Your task to perform on an android device: search for starred emails in the gmail app Image 0: 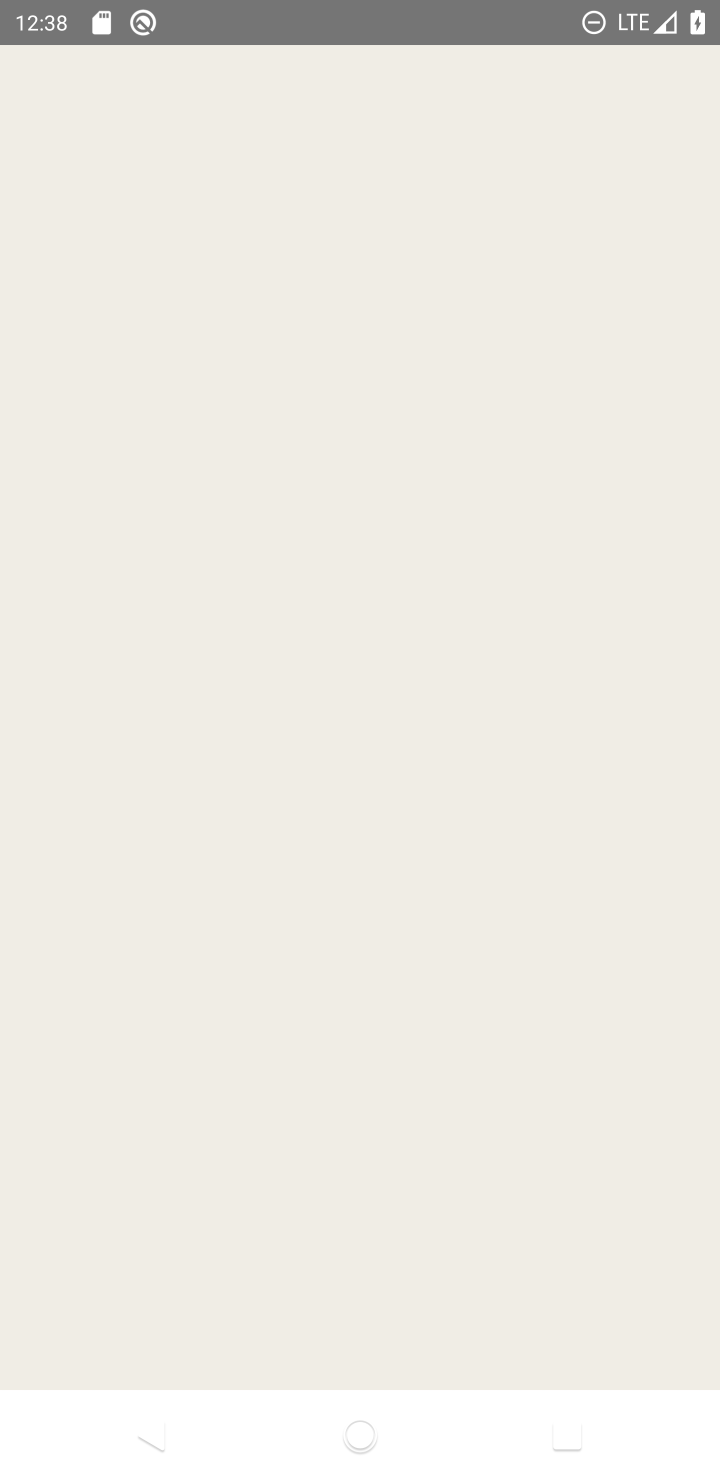
Step 0: press home button
Your task to perform on an android device: search for starred emails in the gmail app Image 1: 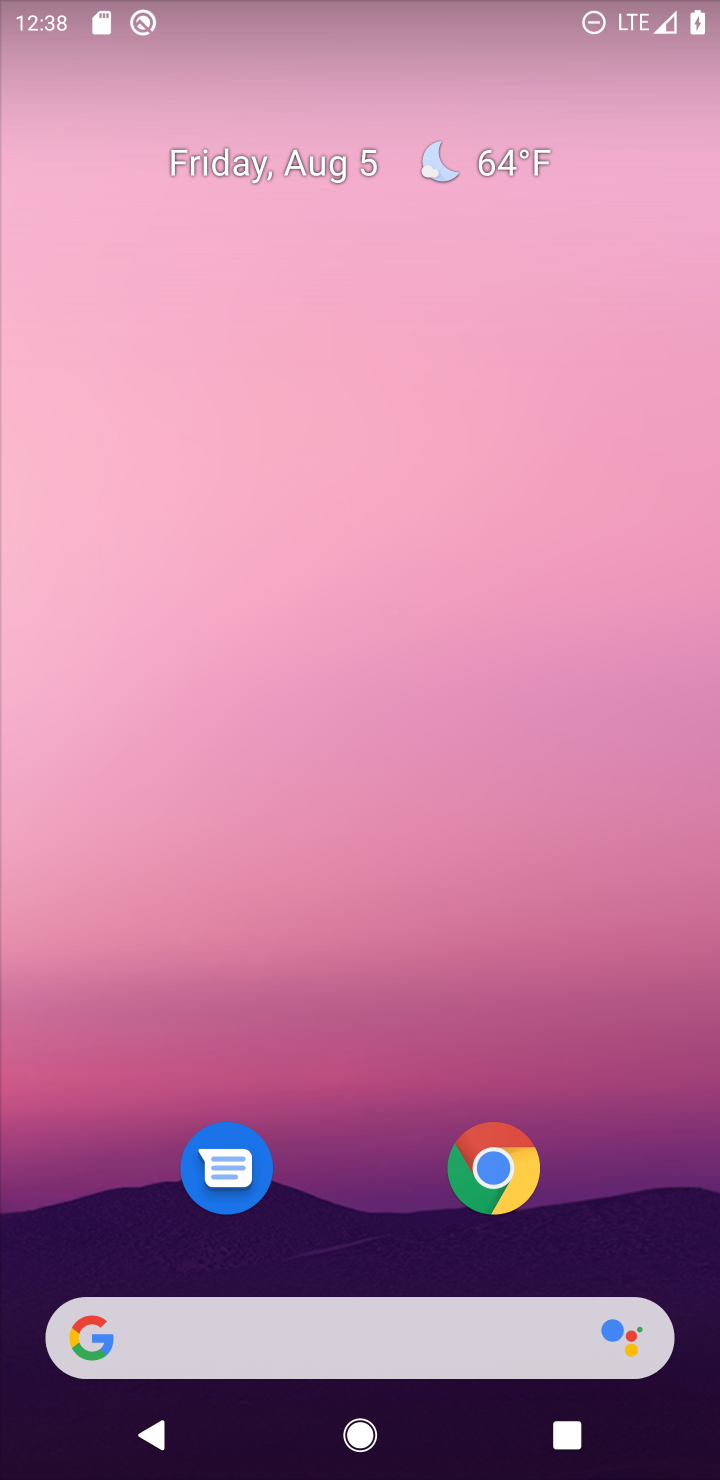
Step 1: drag from (657, 1111) to (344, 2)
Your task to perform on an android device: search for starred emails in the gmail app Image 2: 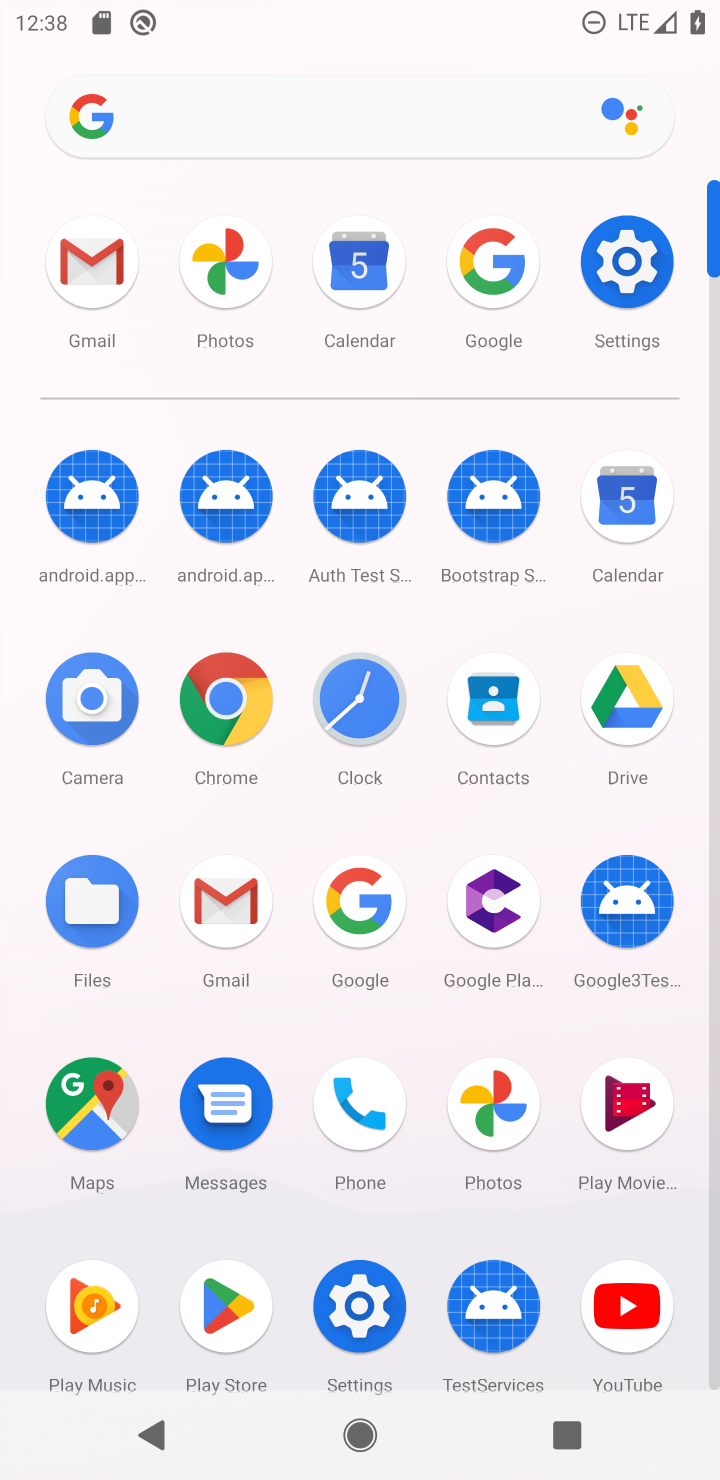
Step 2: click (232, 913)
Your task to perform on an android device: search for starred emails in the gmail app Image 3: 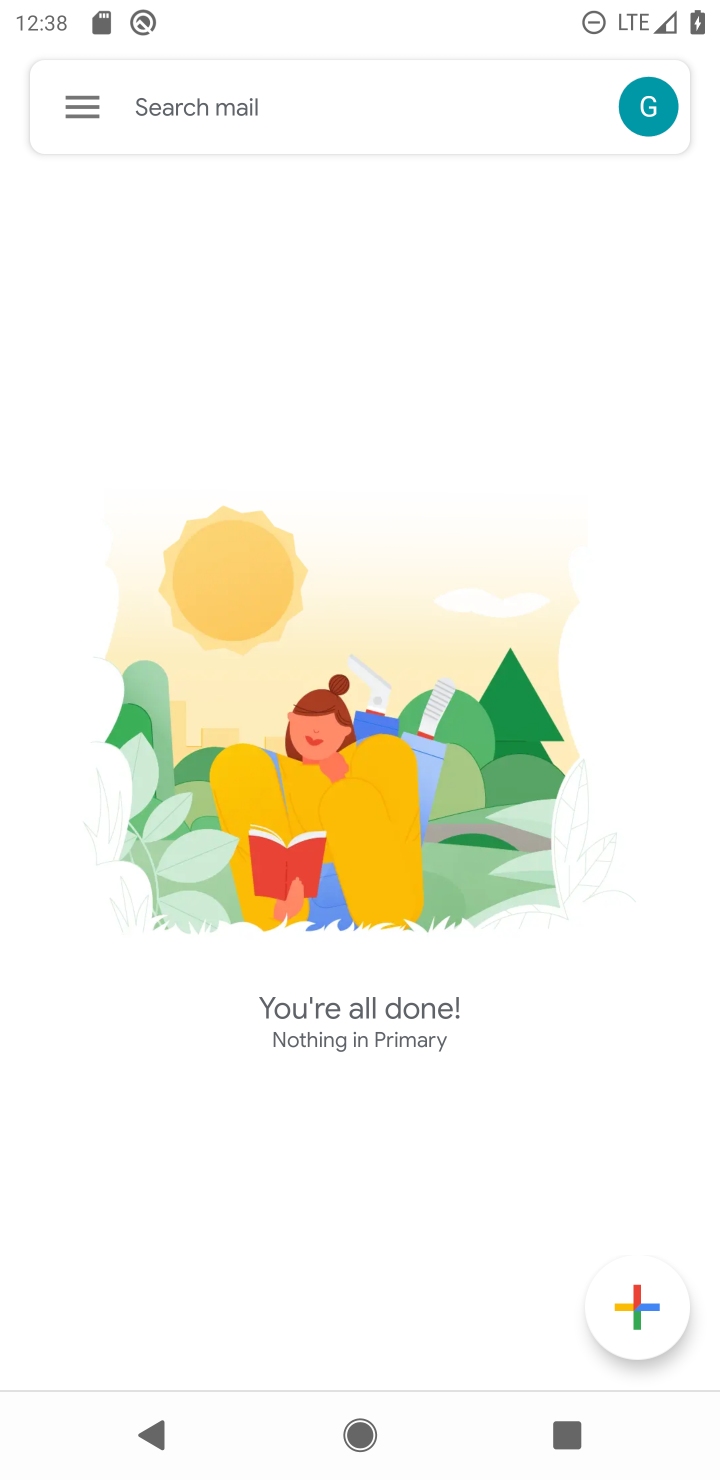
Step 3: click (76, 120)
Your task to perform on an android device: search for starred emails in the gmail app Image 4: 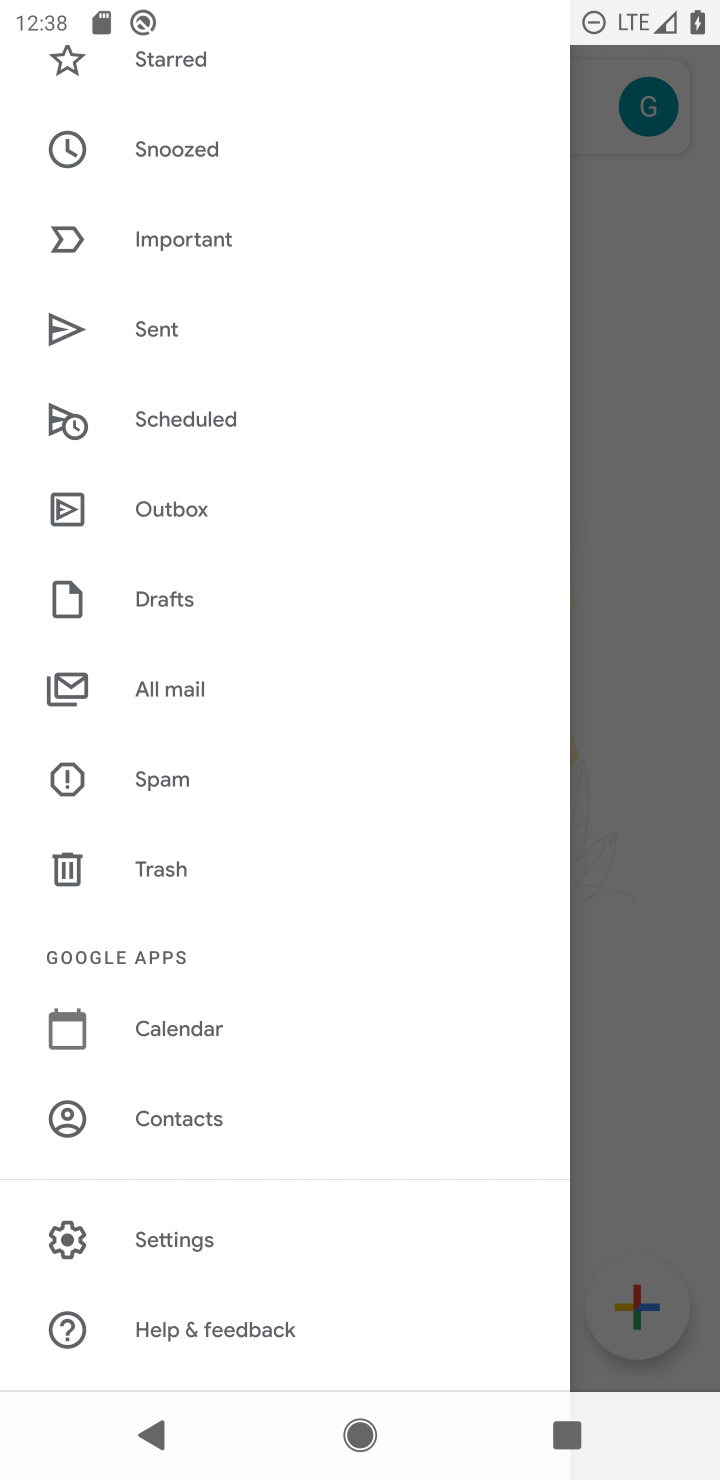
Step 4: click (181, 51)
Your task to perform on an android device: search for starred emails in the gmail app Image 5: 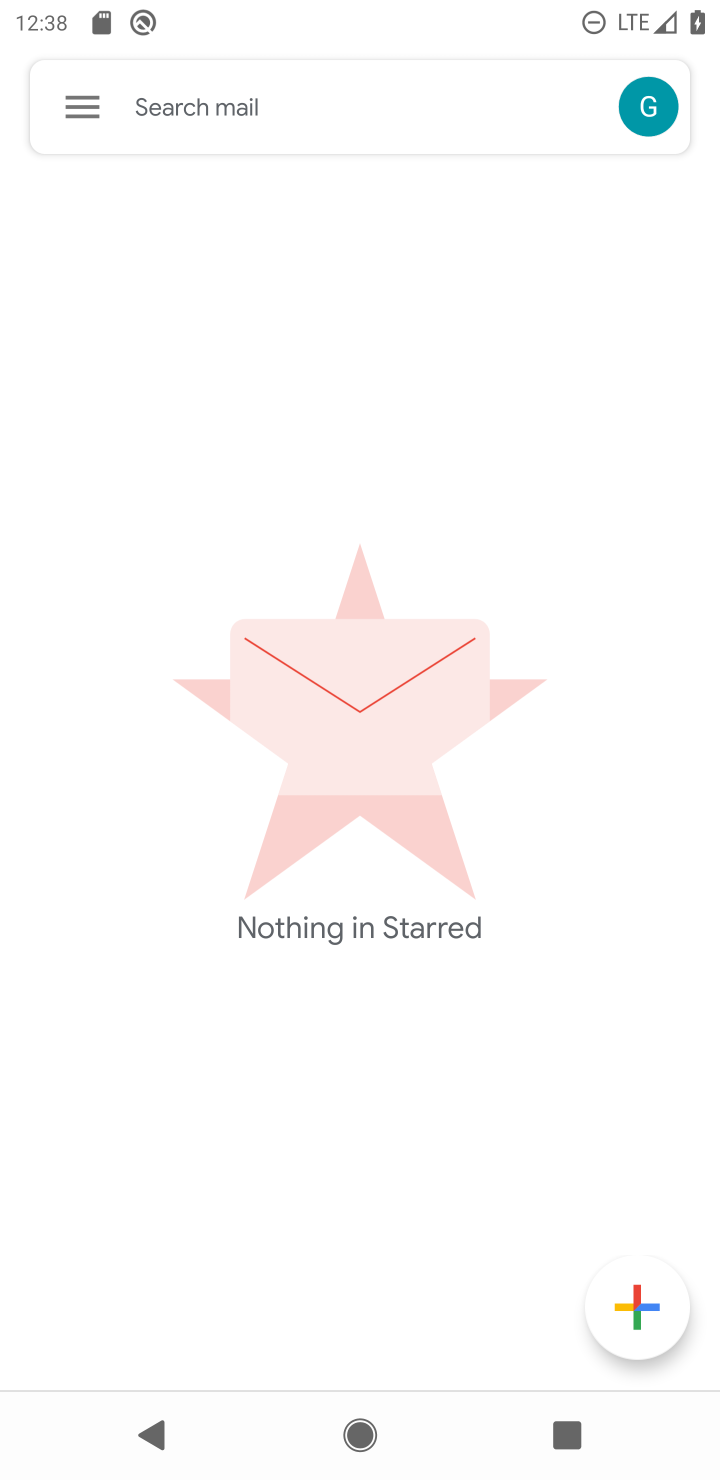
Step 5: task complete